Your task to perform on an android device: Search for Italian restaurants on Maps Image 0: 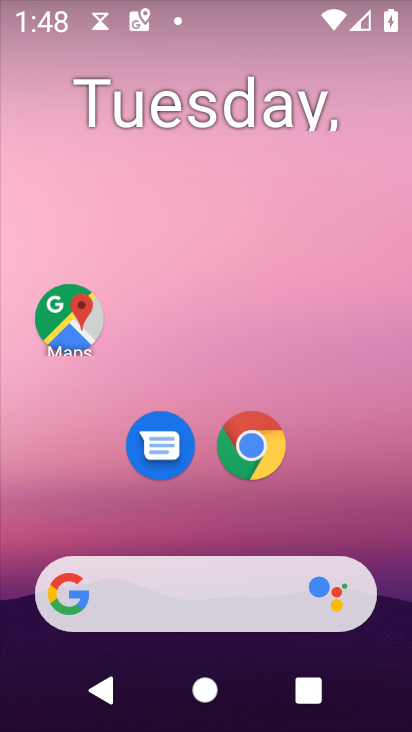
Step 0: drag from (334, 628) to (404, 1)
Your task to perform on an android device: Search for Italian restaurants on Maps Image 1: 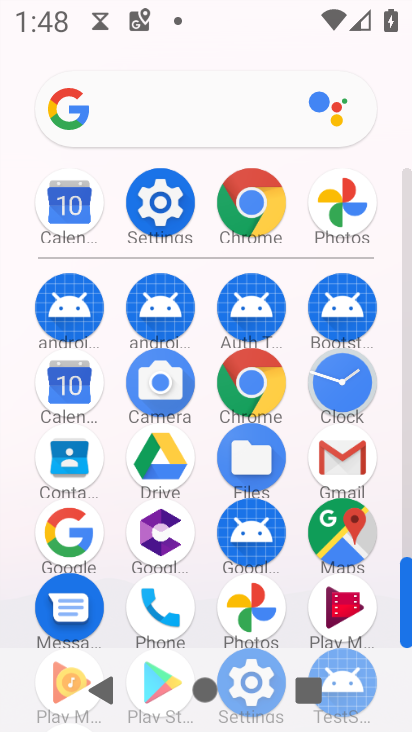
Step 1: click (338, 535)
Your task to perform on an android device: Search for Italian restaurants on Maps Image 2: 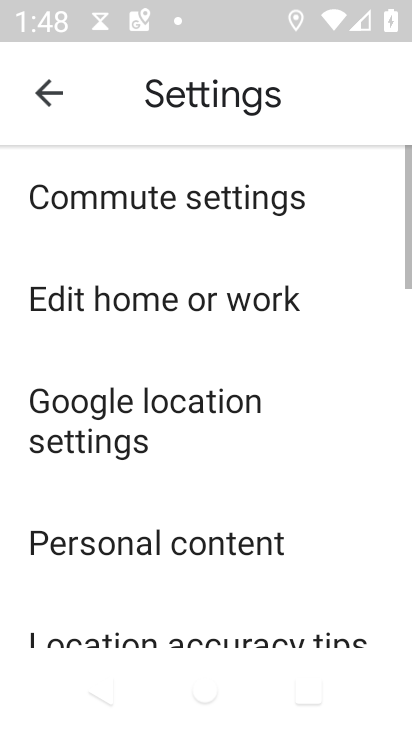
Step 2: press back button
Your task to perform on an android device: Search for Italian restaurants on Maps Image 3: 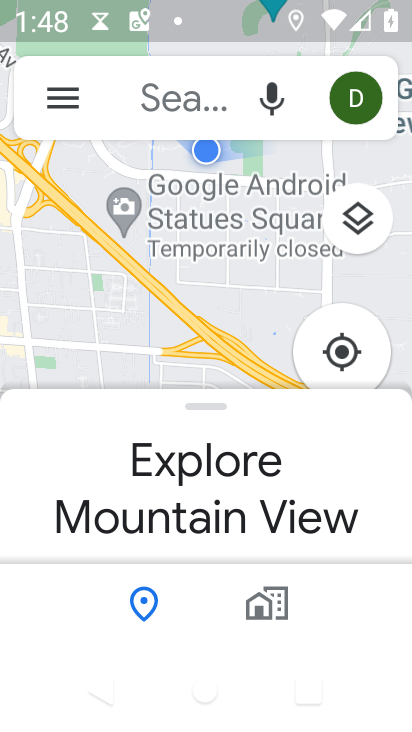
Step 3: click (170, 104)
Your task to perform on an android device: Search for Italian restaurants on Maps Image 4: 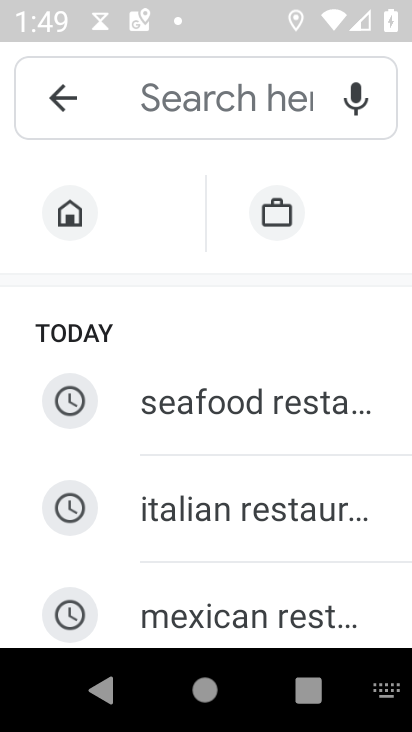
Step 4: type "italian restaurant"
Your task to perform on an android device: Search for Italian restaurants on Maps Image 5: 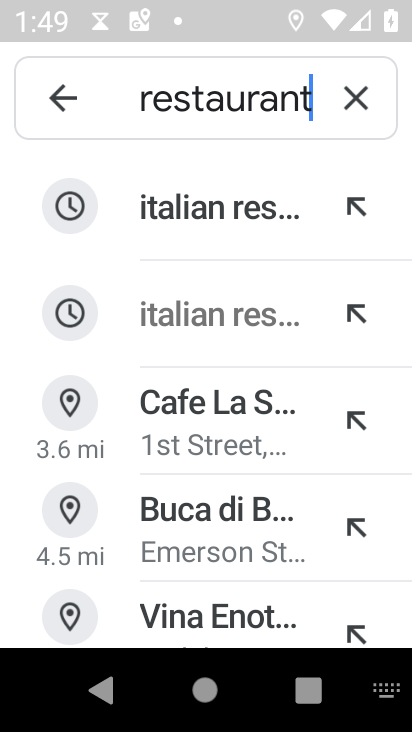
Step 5: click (289, 232)
Your task to perform on an android device: Search for Italian restaurants on Maps Image 6: 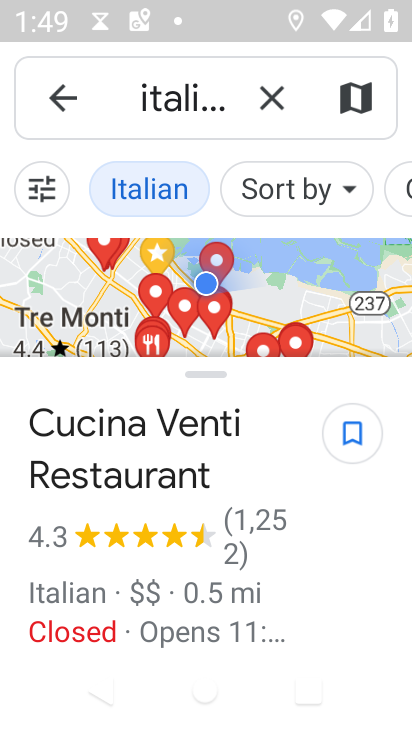
Step 6: task complete